Your task to perform on an android device: Do I have any events tomorrow? Image 0: 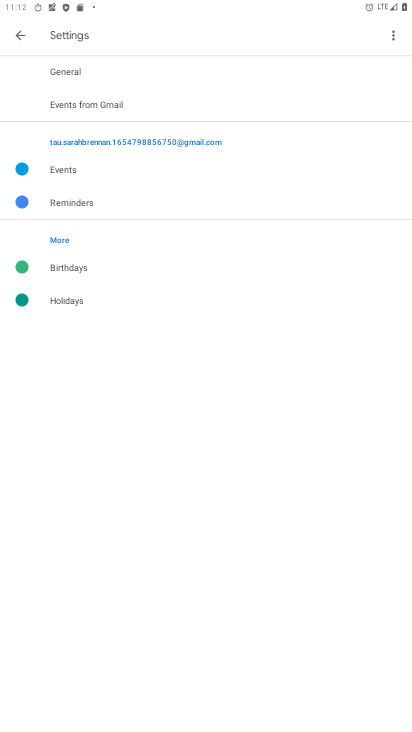
Step 0: press home button
Your task to perform on an android device: Do I have any events tomorrow? Image 1: 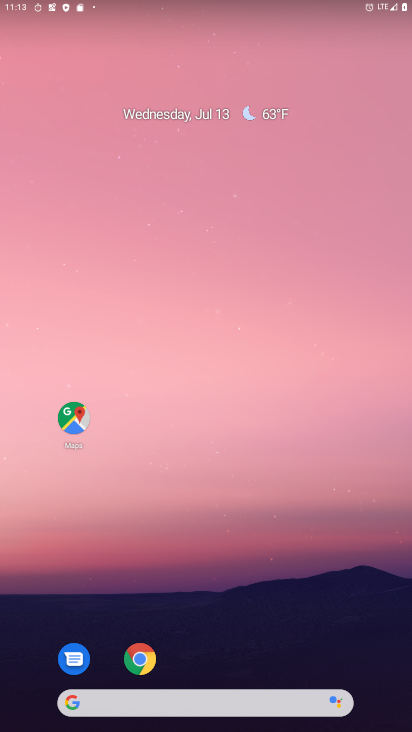
Step 1: drag from (363, 638) to (325, 57)
Your task to perform on an android device: Do I have any events tomorrow? Image 2: 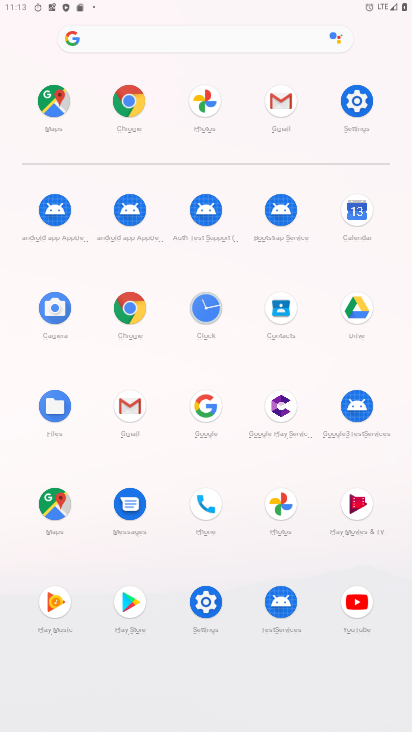
Step 2: click (359, 211)
Your task to perform on an android device: Do I have any events tomorrow? Image 3: 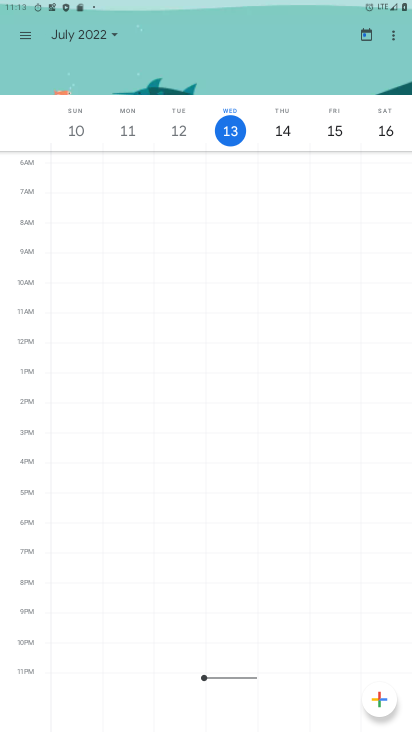
Step 3: click (283, 122)
Your task to perform on an android device: Do I have any events tomorrow? Image 4: 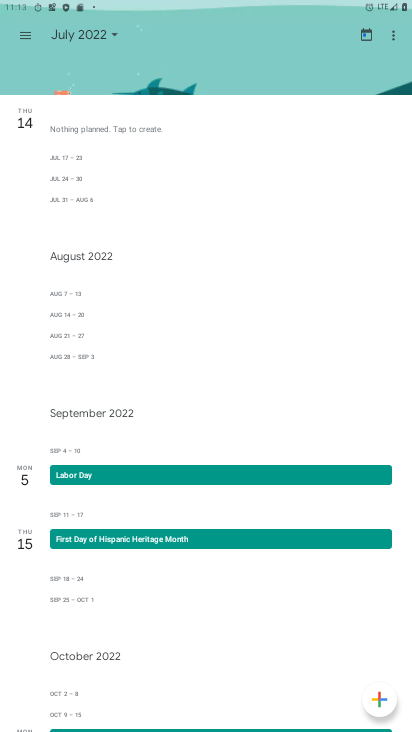
Step 4: task complete